Your task to perform on an android device: Go to privacy settings Image 0: 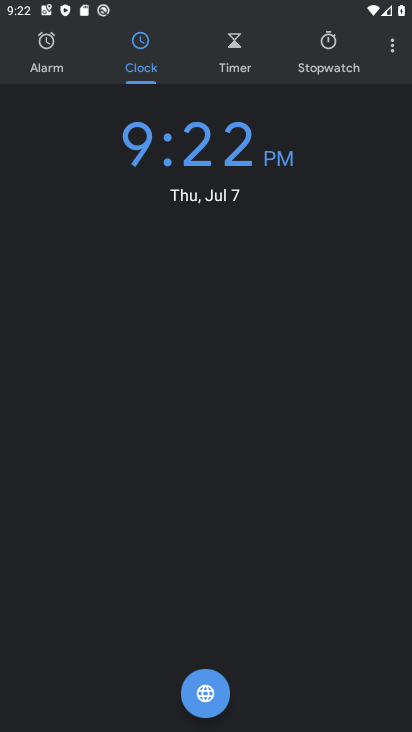
Step 0: press home button
Your task to perform on an android device: Go to privacy settings Image 1: 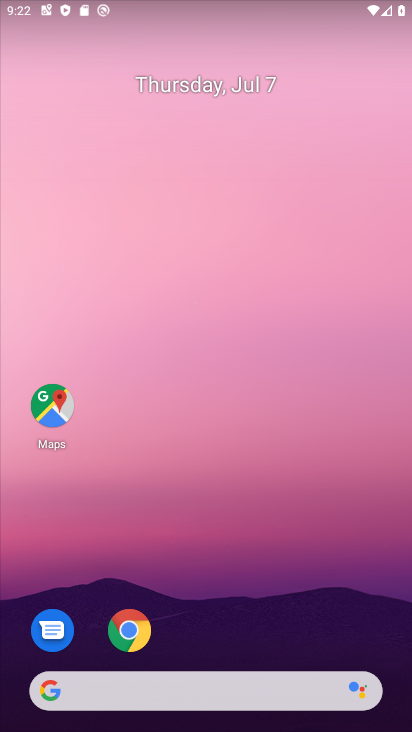
Step 1: drag from (180, 643) to (208, 395)
Your task to perform on an android device: Go to privacy settings Image 2: 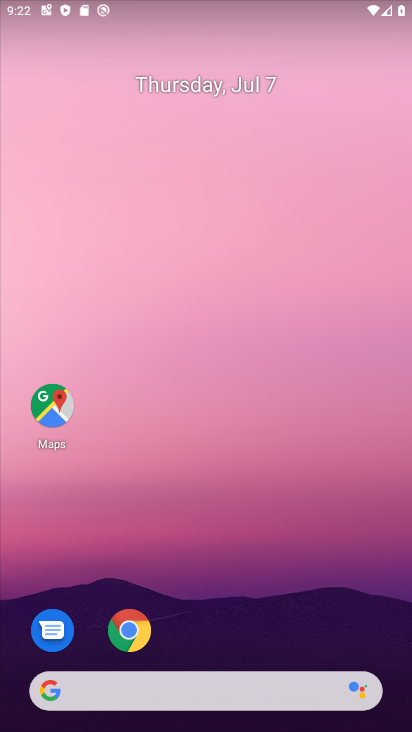
Step 2: drag from (208, 643) to (233, 248)
Your task to perform on an android device: Go to privacy settings Image 3: 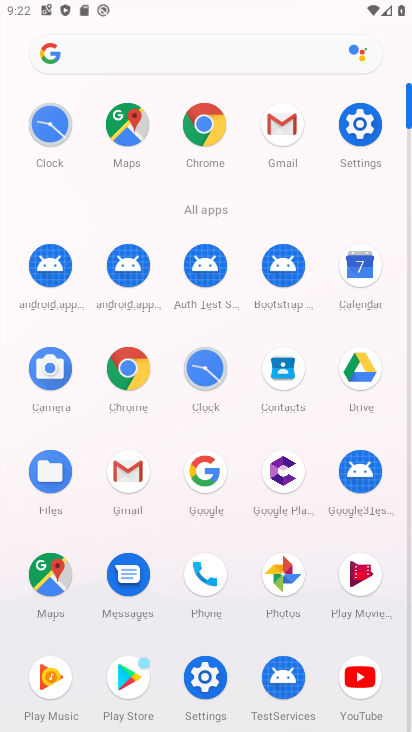
Step 3: click (352, 123)
Your task to perform on an android device: Go to privacy settings Image 4: 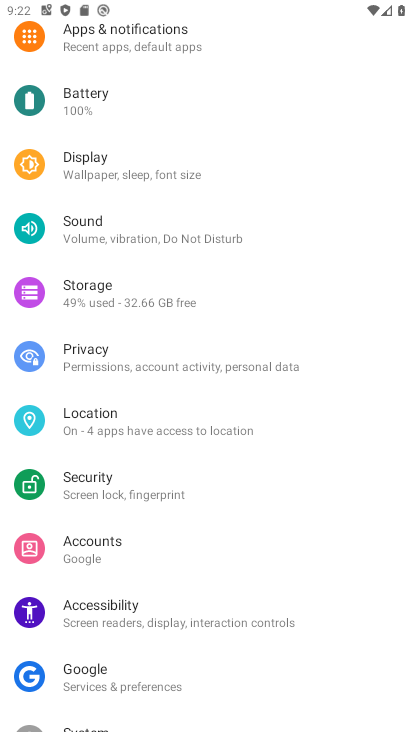
Step 4: click (75, 358)
Your task to perform on an android device: Go to privacy settings Image 5: 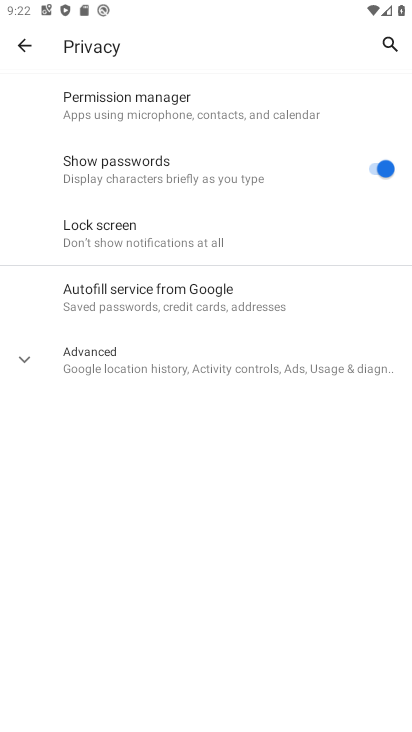
Step 5: click (76, 348)
Your task to perform on an android device: Go to privacy settings Image 6: 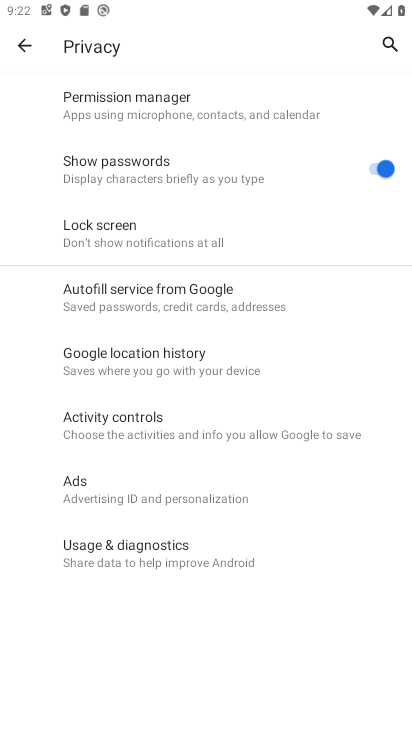
Step 6: task complete